Your task to perform on an android device: manage bookmarks in the chrome app Image 0: 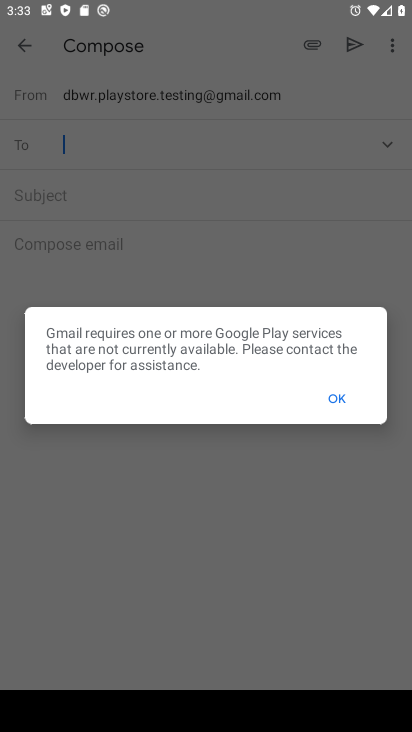
Step 0: click (336, 398)
Your task to perform on an android device: manage bookmarks in the chrome app Image 1: 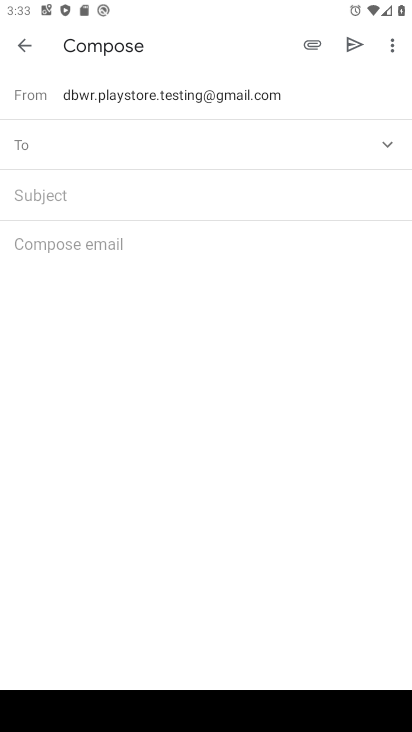
Step 1: press home button
Your task to perform on an android device: manage bookmarks in the chrome app Image 2: 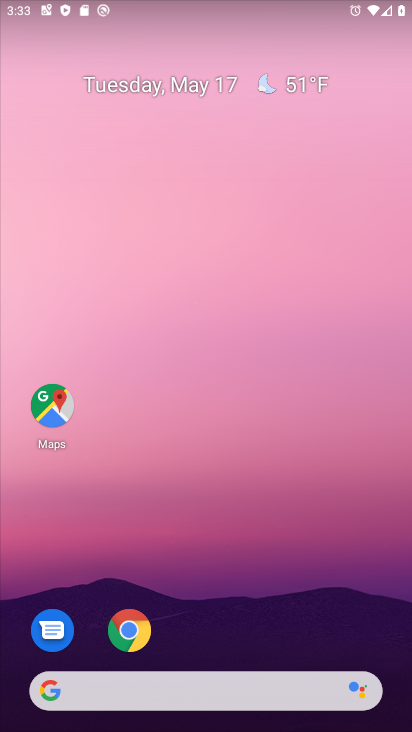
Step 2: click (124, 632)
Your task to perform on an android device: manage bookmarks in the chrome app Image 3: 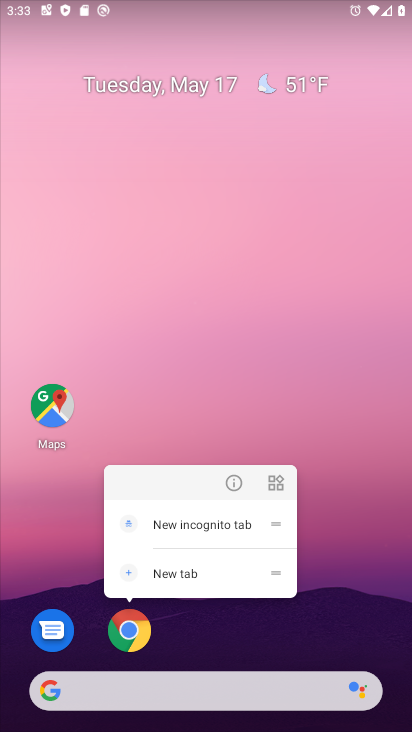
Step 3: click (128, 630)
Your task to perform on an android device: manage bookmarks in the chrome app Image 4: 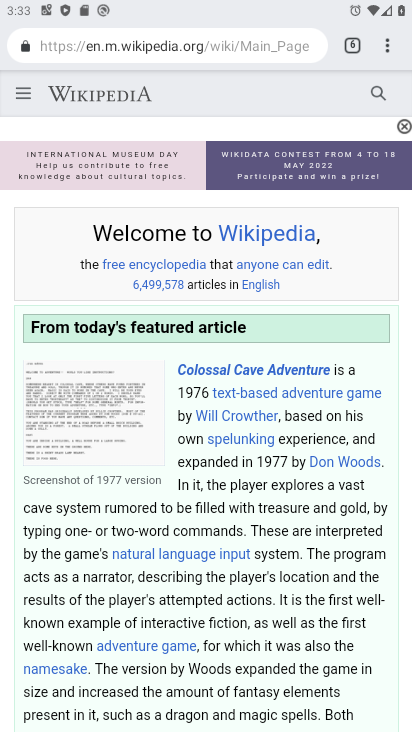
Step 4: click (390, 49)
Your task to perform on an android device: manage bookmarks in the chrome app Image 5: 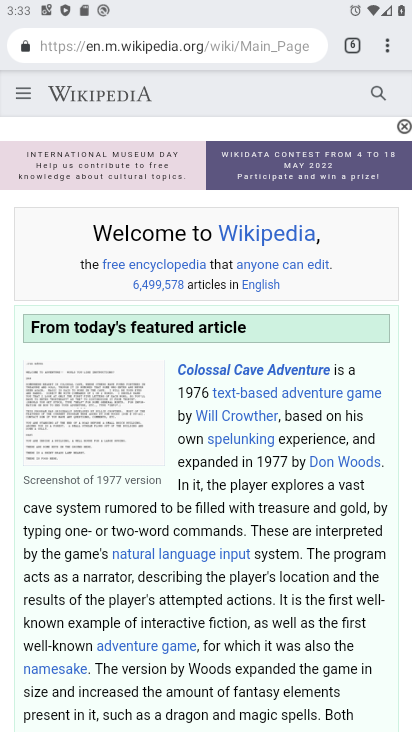
Step 5: task complete